Your task to perform on an android device: When is my next meeting? Image 0: 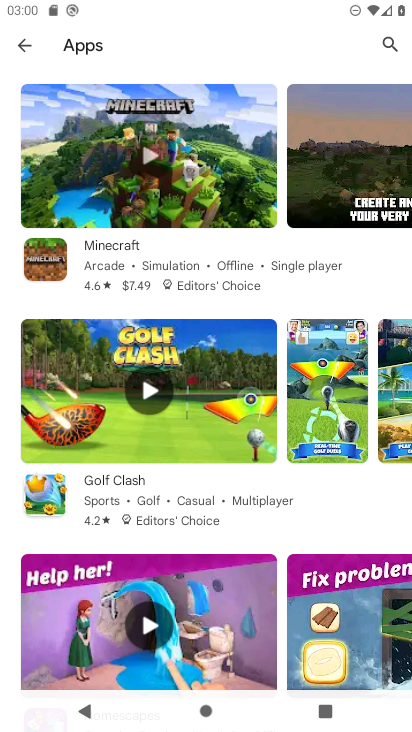
Step 0: press home button
Your task to perform on an android device: When is my next meeting? Image 1: 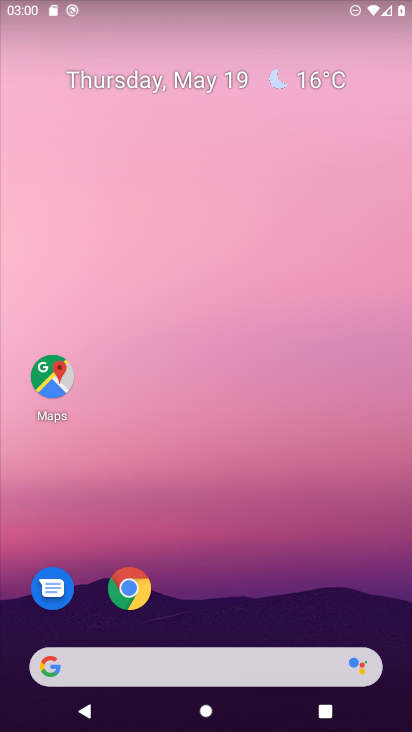
Step 1: drag from (254, 455) to (300, 0)
Your task to perform on an android device: When is my next meeting? Image 2: 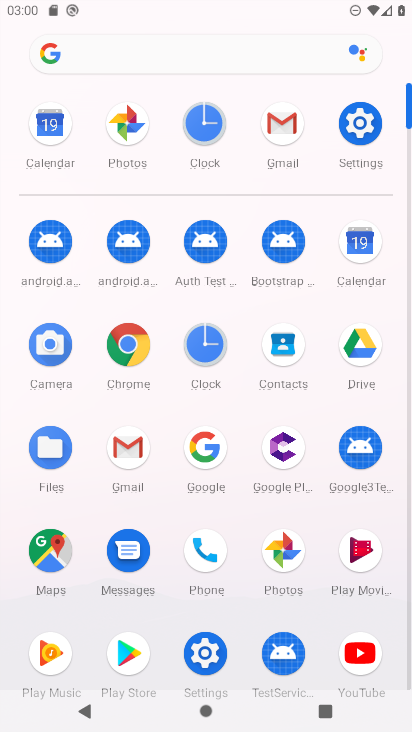
Step 2: click (370, 257)
Your task to perform on an android device: When is my next meeting? Image 3: 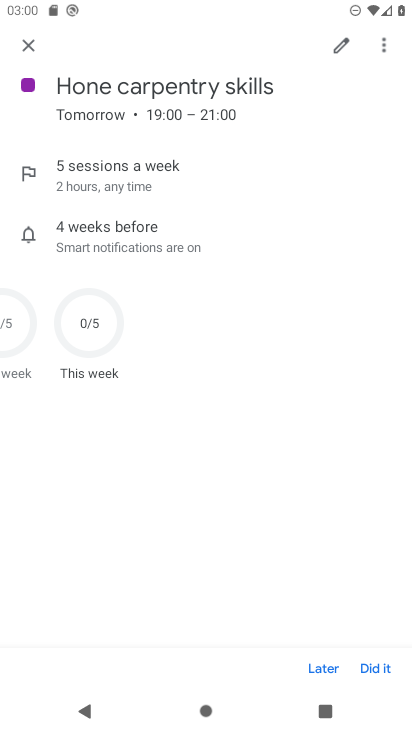
Step 3: click (27, 47)
Your task to perform on an android device: When is my next meeting? Image 4: 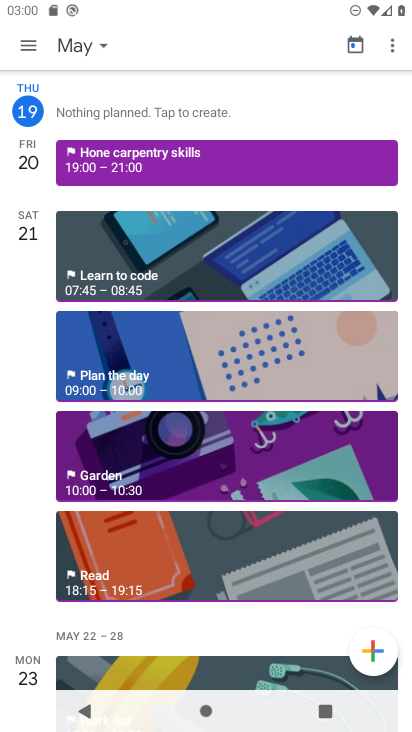
Step 4: click (117, 173)
Your task to perform on an android device: When is my next meeting? Image 5: 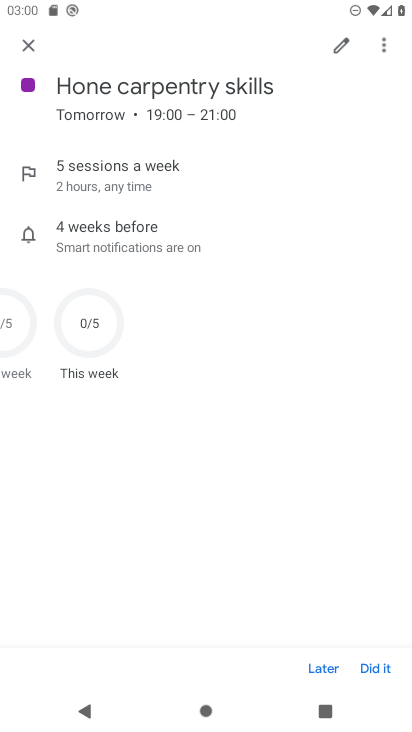
Step 5: task complete